Your task to perform on an android device: Go to location settings Image 0: 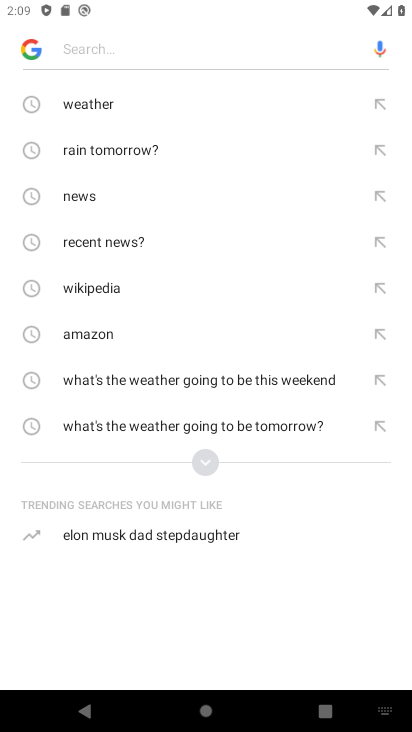
Step 0: press home button
Your task to perform on an android device: Go to location settings Image 1: 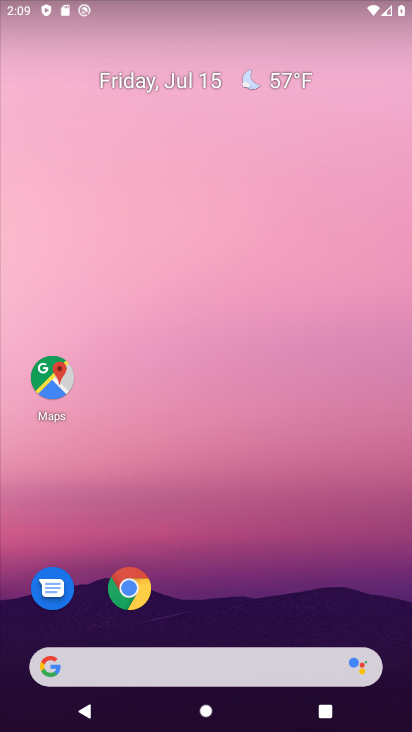
Step 1: drag from (310, 589) to (315, 1)
Your task to perform on an android device: Go to location settings Image 2: 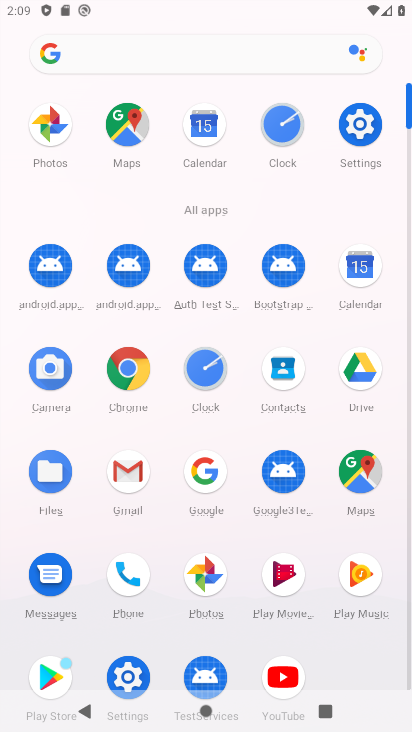
Step 2: click (138, 673)
Your task to perform on an android device: Go to location settings Image 3: 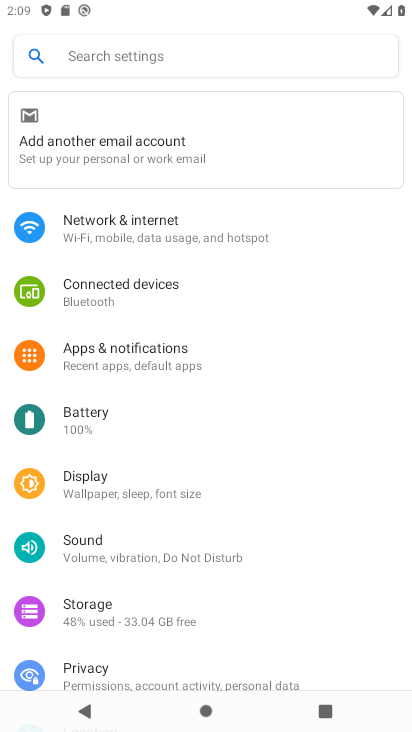
Step 3: drag from (212, 510) to (188, 173)
Your task to perform on an android device: Go to location settings Image 4: 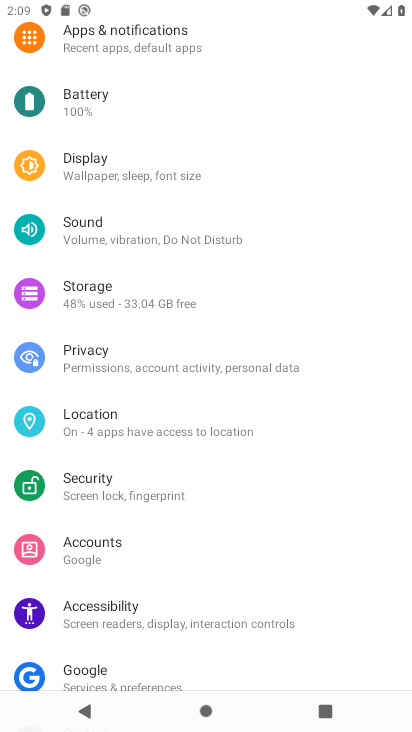
Step 4: click (83, 418)
Your task to perform on an android device: Go to location settings Image 5: 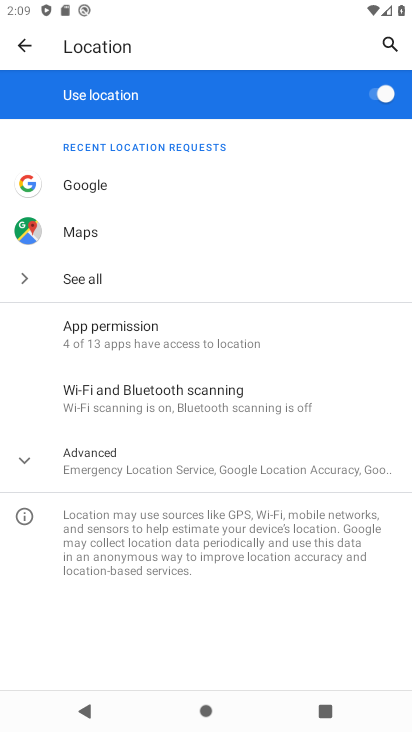
Step 5: task complete